Your task to perform on an android device: clear history in the chrome app Image 0: 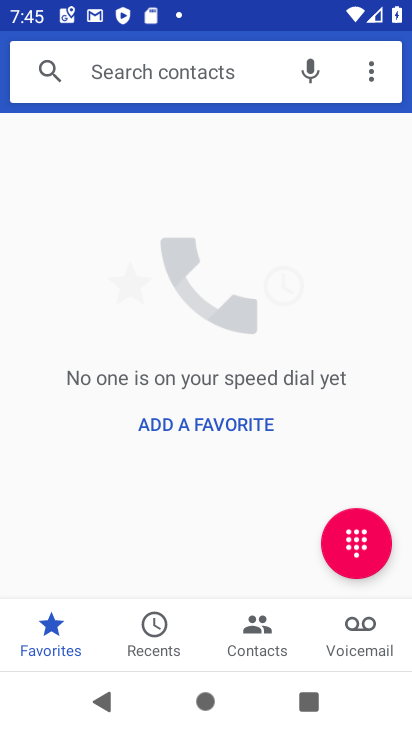
Step 0: press home button
Your task to perform on an android device: clear history in the chrome app Image 1: 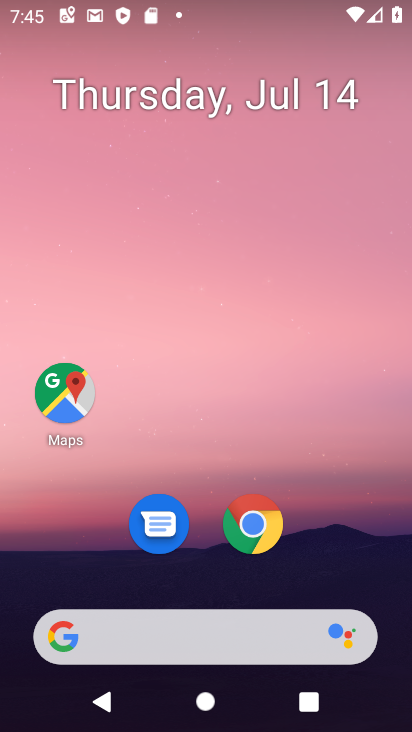
Step 1: click (265, 526)
Your task to perform on an android device: clear history in the chrome app Image 2: 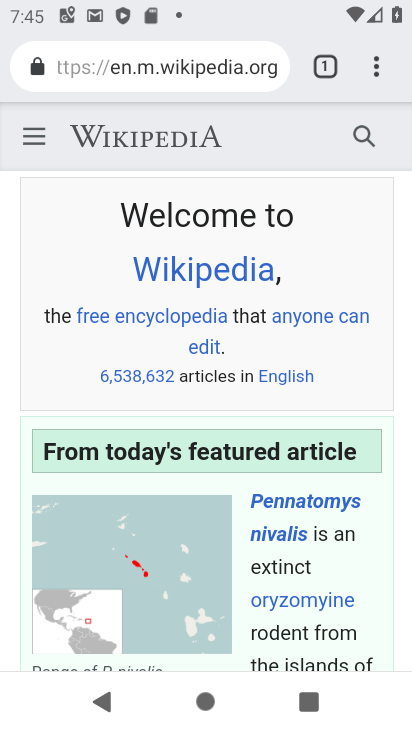
Step 2: click (376, 68)
Your task to perform on an android device: clear history in the chrome app Image 3: 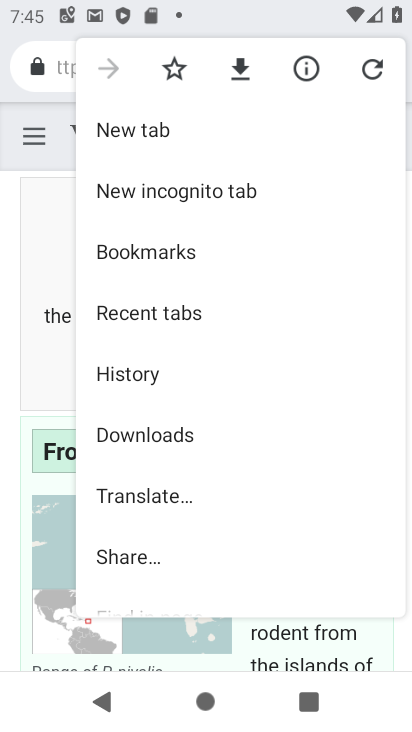
Step 3: click (138, 367)
Your task to perform on an android device: clear history in the chrome app Image 4: 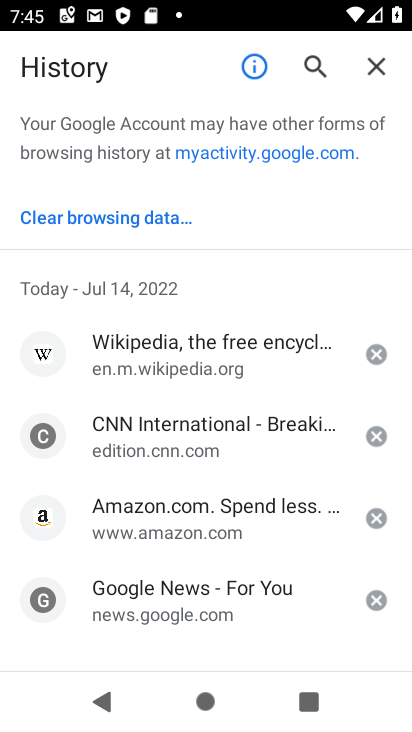
Step 4: click (116, 213)
Your task to perform on an android device: clear history in the chrome app Image 5: 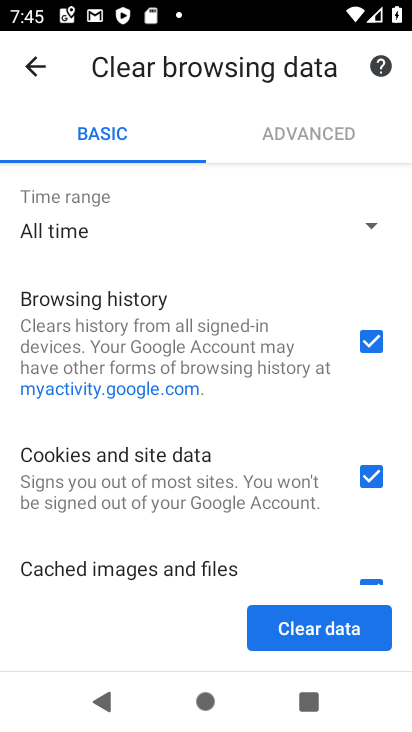
Step 5: click (340, 624)
Your task to perform on an android device: clear history in the chrome app Image 6: 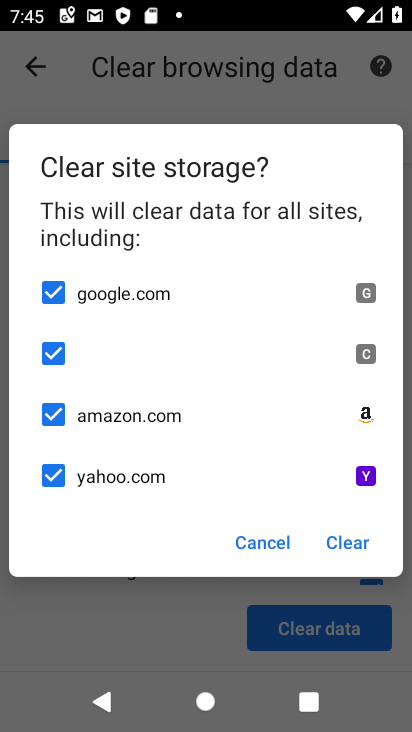
Step 6: click (357, 541)
Your task to perform on an android device: clear history in the chrome app Image 7: 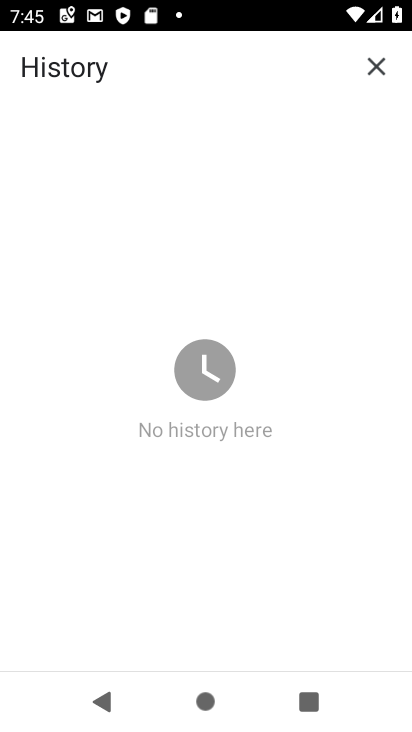
Step 7: task complete